Your task to perform on an android device: find photos in the google photos app Image 0: 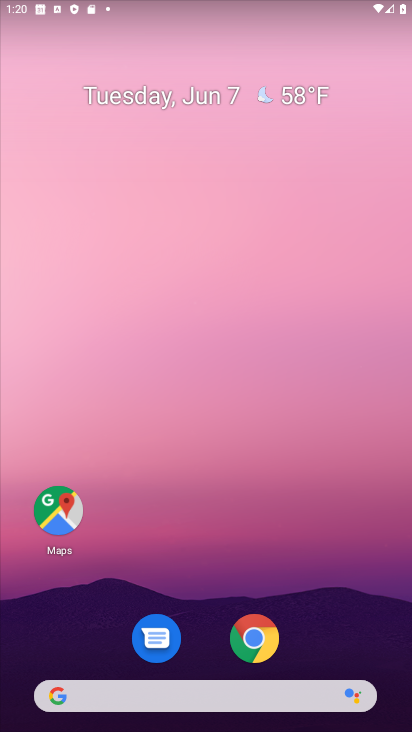
Step 0: drag from (212, 483) to (225, 286)
Your task to perform on an android device: find photos in the google photos app Image 1: 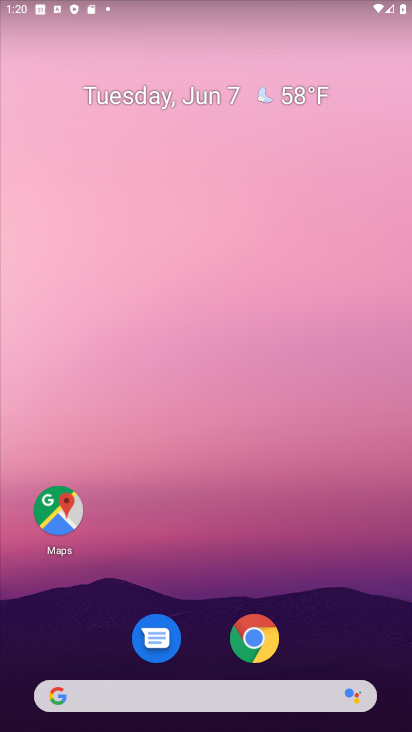
Step 1: drag from (212, 648) to (264, 182)
Your task to perform on an android device: find photos in the google photos app Image 2: 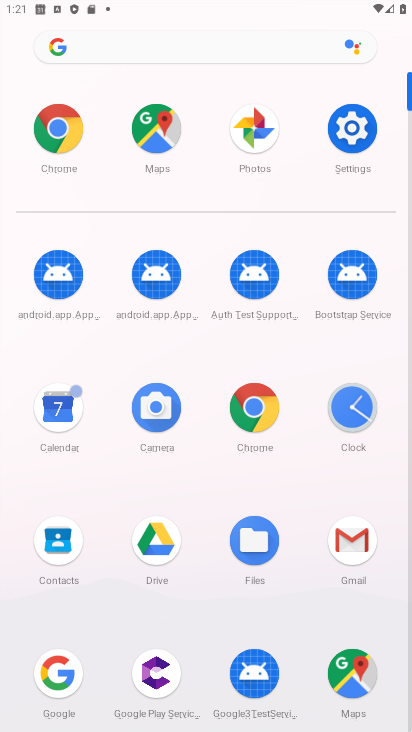
Step 2: click (265, 133)
Your task to perform on an android device: find photos in the google photos app Image 3: 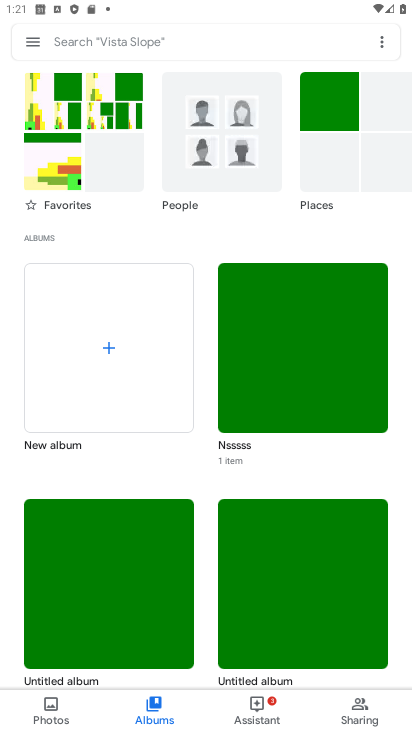
Step 3: task complete